Your task to perform on an android device: change text size in settings app Image 0: 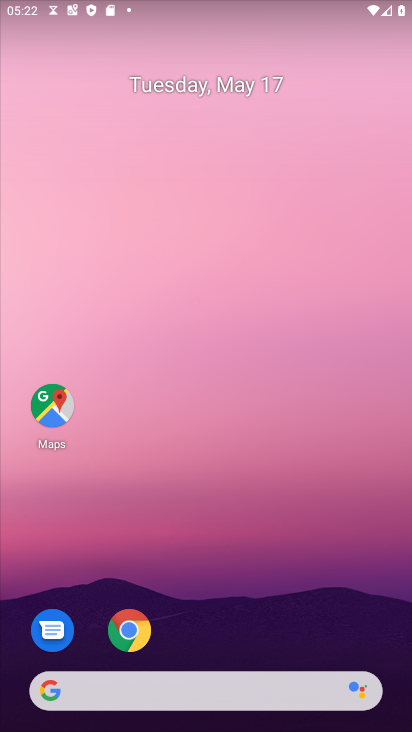
Step 0: drag from (226, 649) to (196, 301)
Your task to perform on an android device: change text size in settings app Image 1: 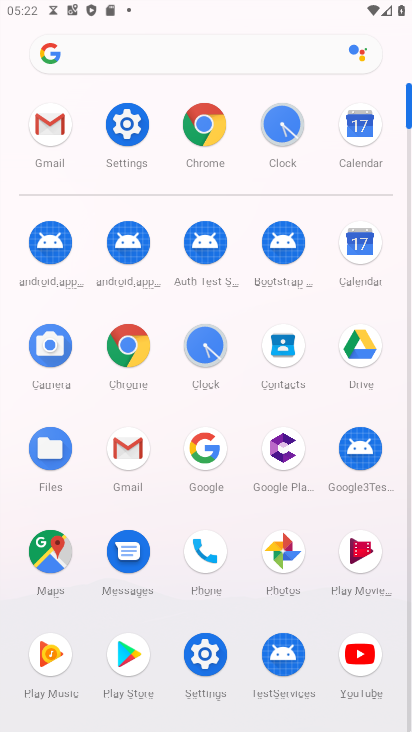
Step 1: click (125, 137)
Your task to perform on an android device: change text size in settings app Image 2: 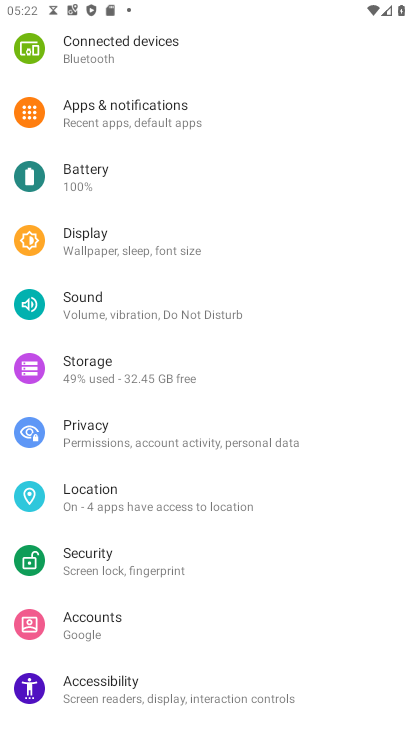
Step 2: drag from (149, 629) to (157, 360)
Your task to perform on an android device: change text size in settings app Image 3: 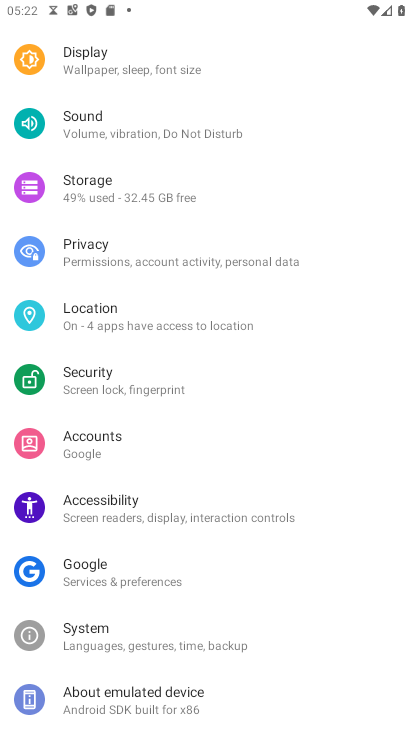
Step 3: click (84, 649)
Your task to perform on an android device: change text size in settings app Image 4: 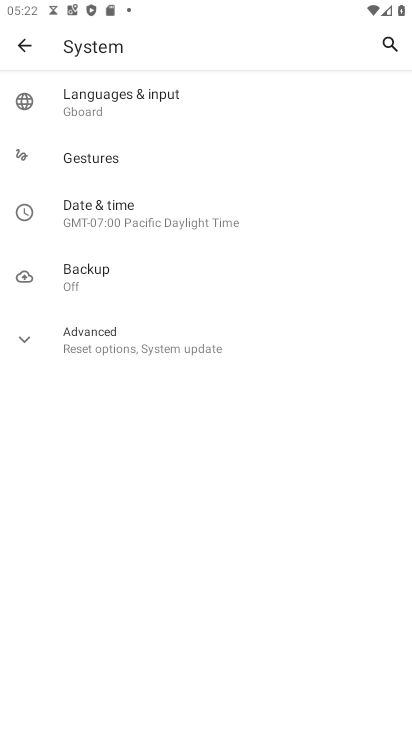
Step 4: click (27, 41)
Your task to perform on an android device: change text size in settings app Image 5: 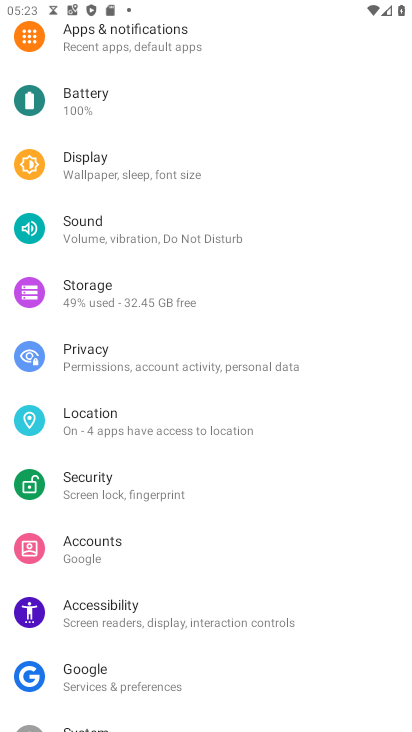
Step 5: drag from (190, 698) to (202, 342)
Your task to perform on an android device: change text size in settings app Image 6: 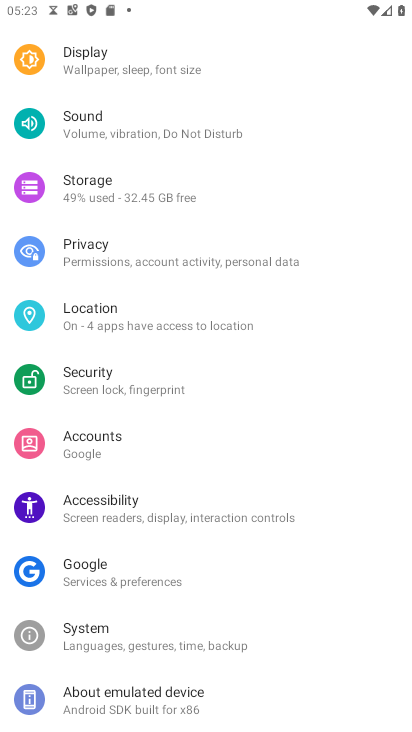
Step 6: drag from (223, 180) to (252, 557)
Your task to perform on an android device: change text size in settings app Image 7: 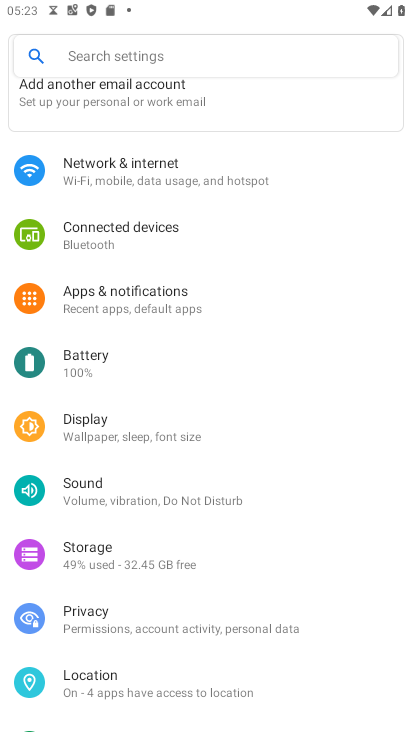
Step 7: click (118, 432)
Your task to perform on an android device: change text size in settings app Image 8: 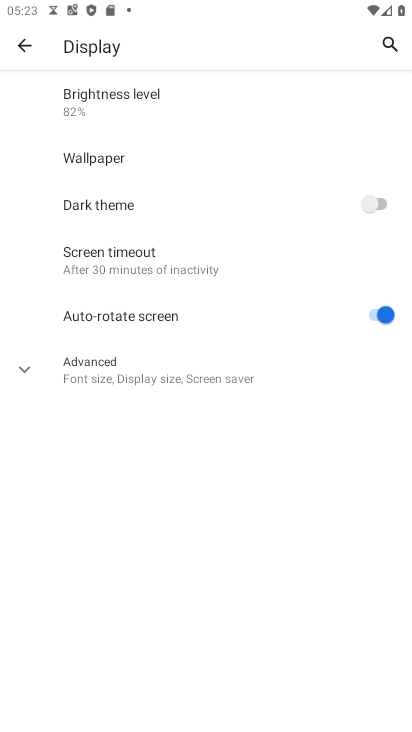
Step 8: click (105, 373)
Your task to perform on an android device: change text size in settings app Image 9: 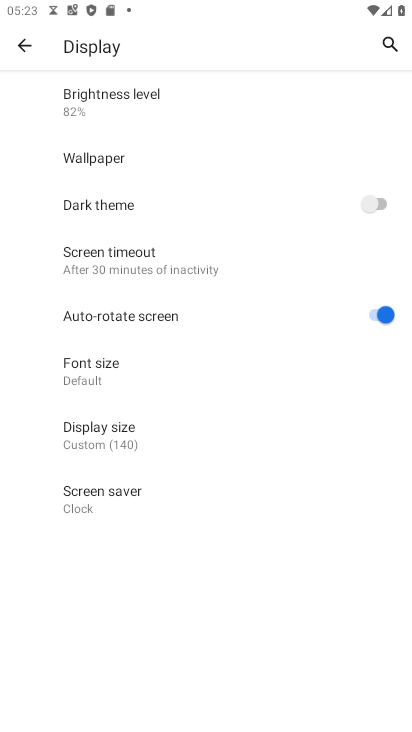
Step 9: click (80, 360)
Your task to perform on an android device: change text size in settings app Image 10: 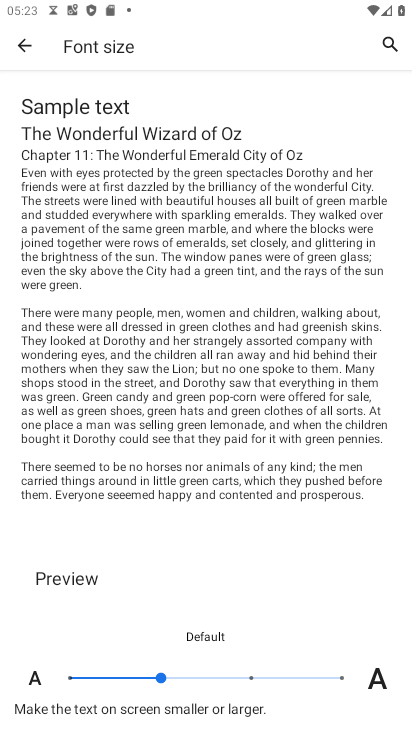
Step 10: click (198, 668)
Your task to perform on an android device: change text size in settings app Image 11: 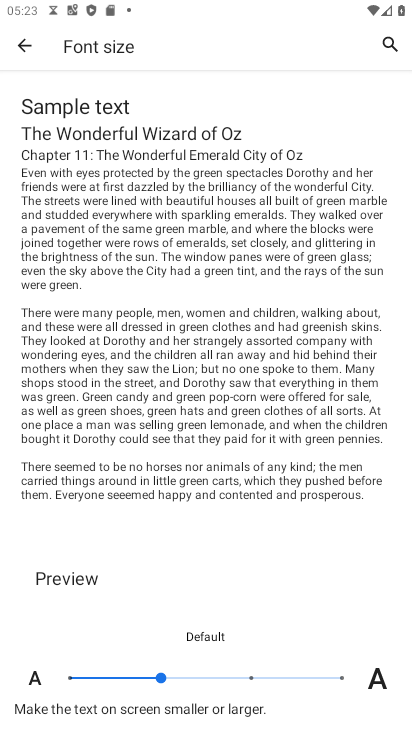
Step 11: click (79, 669)
Your task to perform on an android device: change text size in settings app Image 12: 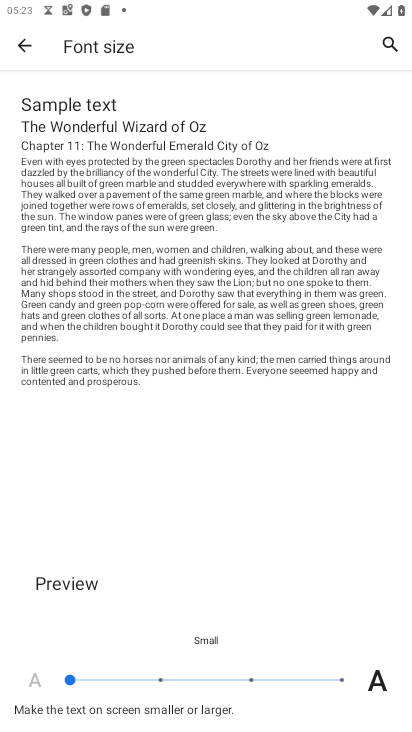
Step 12: click (201, 676)
Your task to perform on an android device: change text size in settings app Image 13: 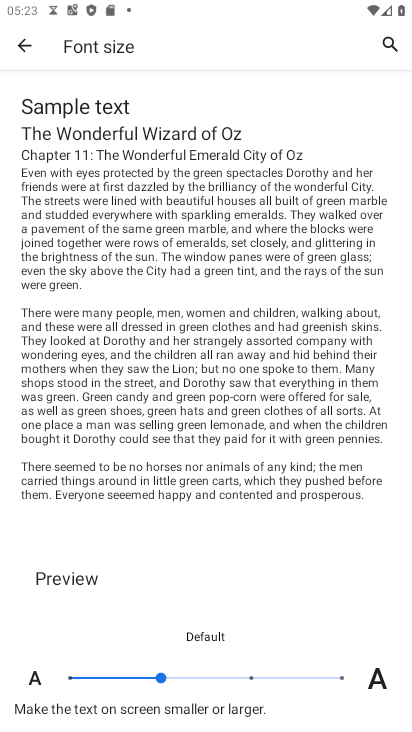
Step 13: click (201, 676)
Your task to perform on an android device: change text size in settings app Image 14: 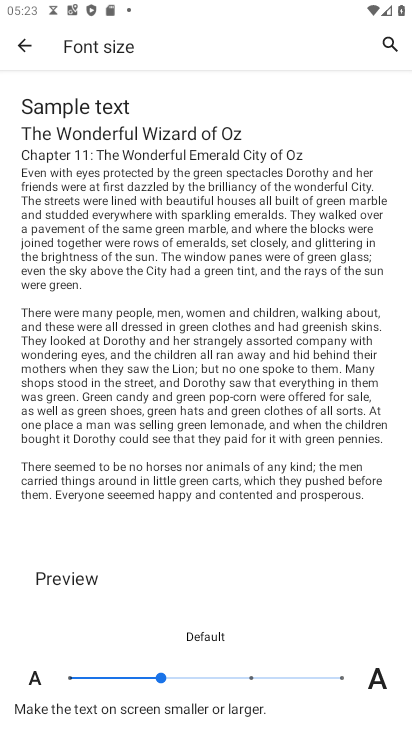
Step 14: task complete